Your task to perform on an android device: Open internet settings Image 0: 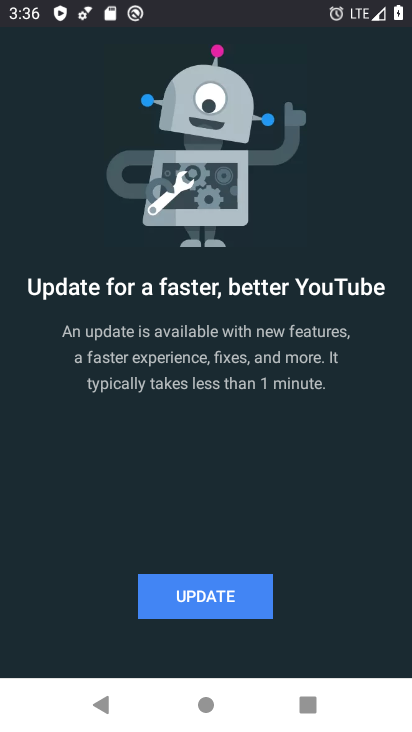
Step 0: press home button
Your task to perform on an android device: Open internet settings Image 1: 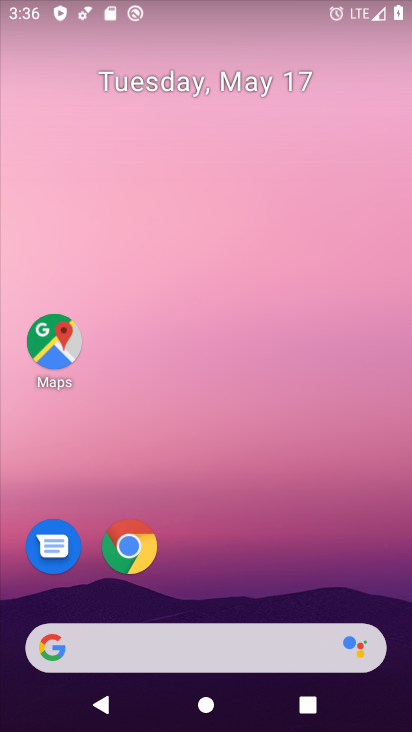
Step 1: drag from (244, 520) to (261, 105)
Your task to perform on an android device: Open internet settings Image 2: 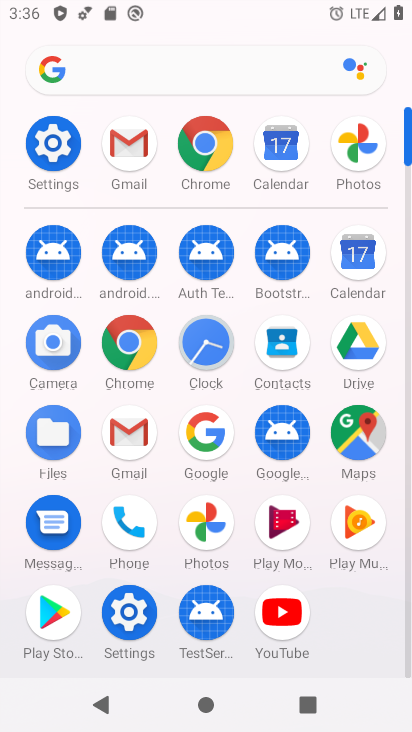
Step 2: click (59, 131)
Your task to perform on an android device: Open internet settings Image 3: 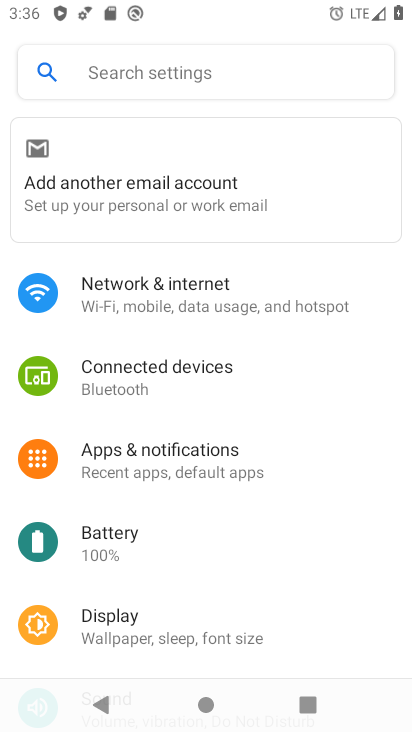
Step 3: click (77, 315)
Your task to perform on an android device: Open internet settings Image 4: 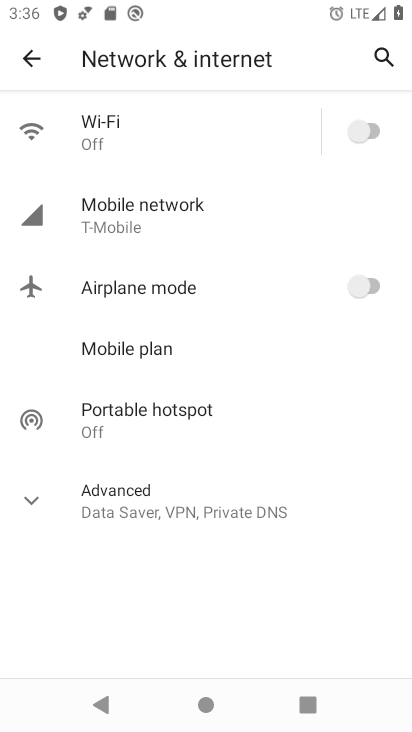
Step 4: task complete